Your task to perform on an android device: Open Google Maps and go to "Timeline" Image 0: 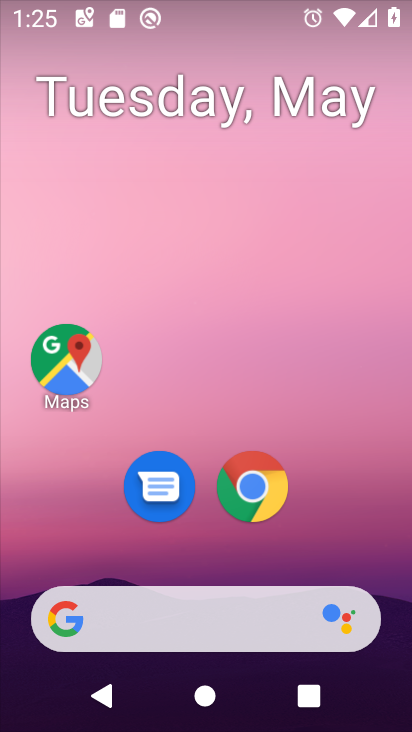
Step 0: click (45, 361)
Your task to perform on an android device: Open Google Maps and go to "Timeline" Image 1: 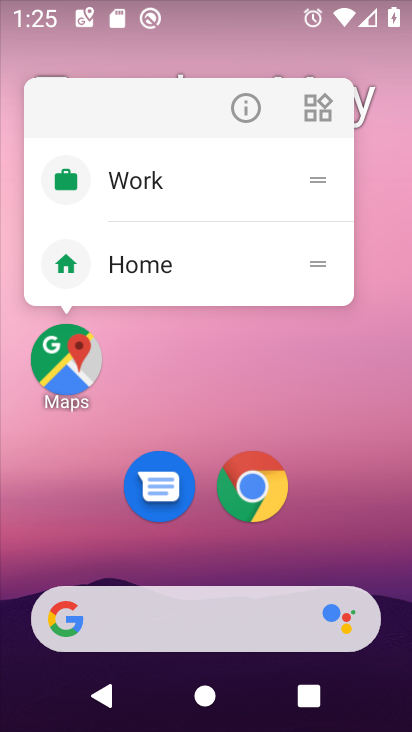
Step 1: click (74, 364)
Your task to perform on an android device: Open Google Maps and go to "Timeline" Image 2: 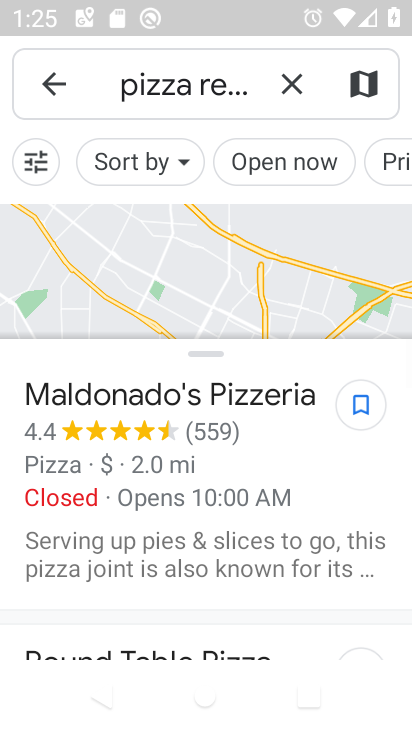
Step 2: click (283, 90)
Your task to perform on an android device: Open Google Maps and go to "Timeline" Image 3: 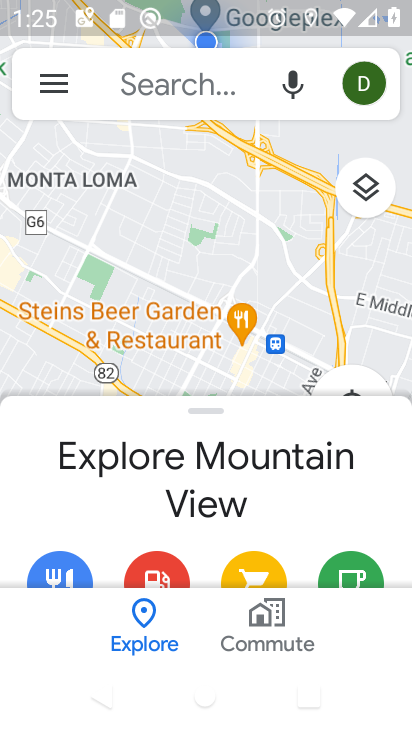
Step 3: click (45, 77)
Your task to perform on an android device: Open Google Maps and go to "Timeline" Image 4: 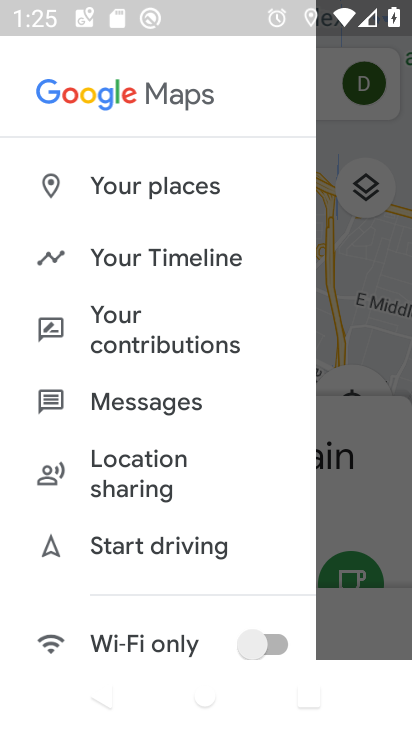
Step 4: click (202, 250)
Your task to perform on an android device: Open Google Maps and go to "Timeline" Image 5: 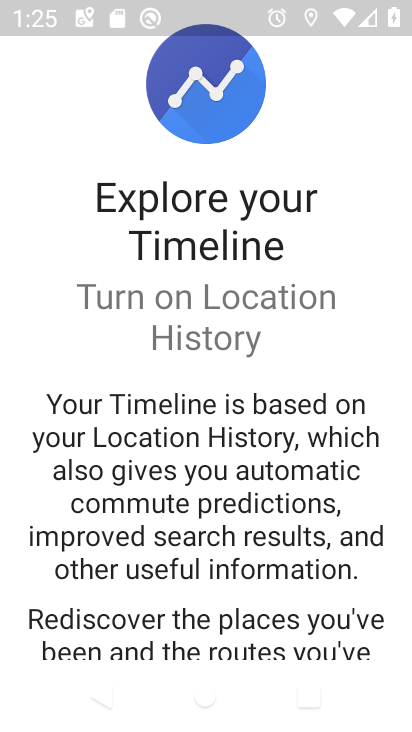
Step 5: drag from (289, 641) to (403, 210)
Your task to perform on an android device: Open Google Maps and go to "Timeline" Image 6: 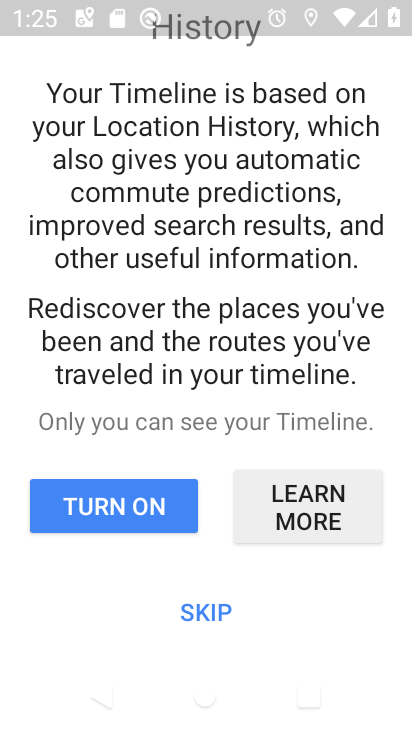
Step 6: click (216, 602)
Your task to perform on an android device: Open Google Maps and go to "Timeline" Image 7: 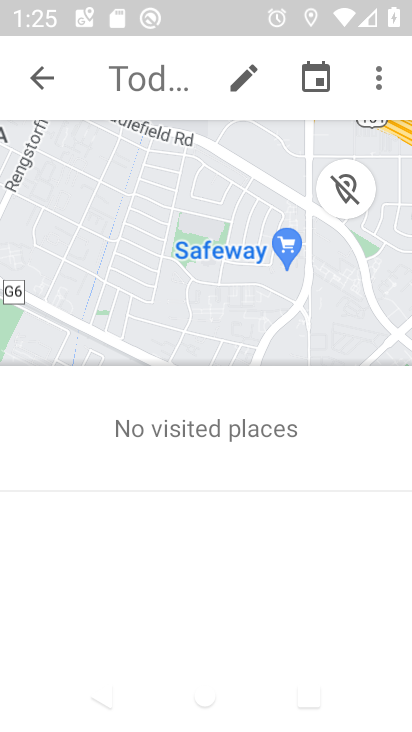
Step 7: task complete